Your task to perform on an android device: all mails in gmail Image 0: 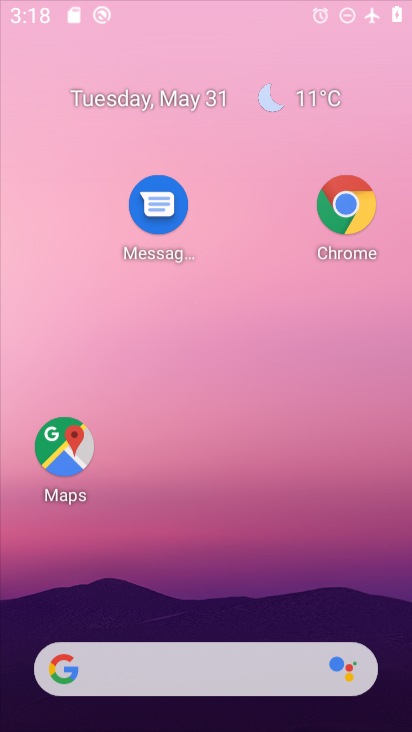
Step 0: click (245, 0)
Your task to perform on an android device: all mails in gmail Image 1: 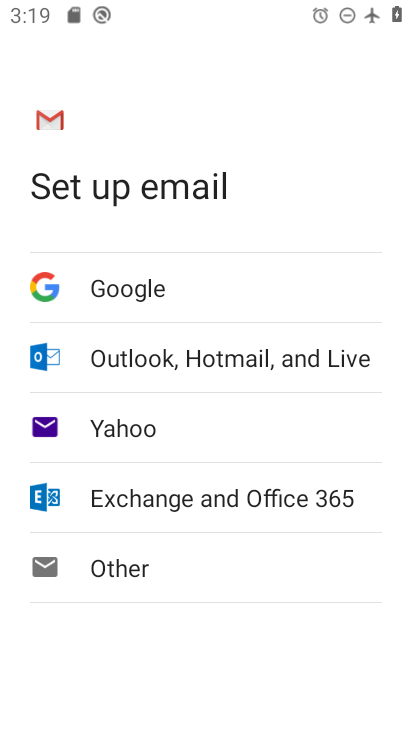
Step 1: drag from (196, 477) to (234, 136)
Your task to perform on an android device: all mails in gmail Image 2: 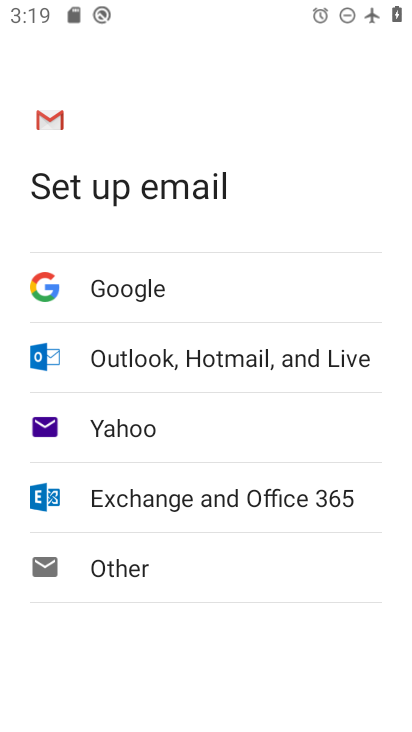
Step 2: drag from (181, 581) to (257, 219)
Your task to perform on an android device: all mails in gmail Image 3: 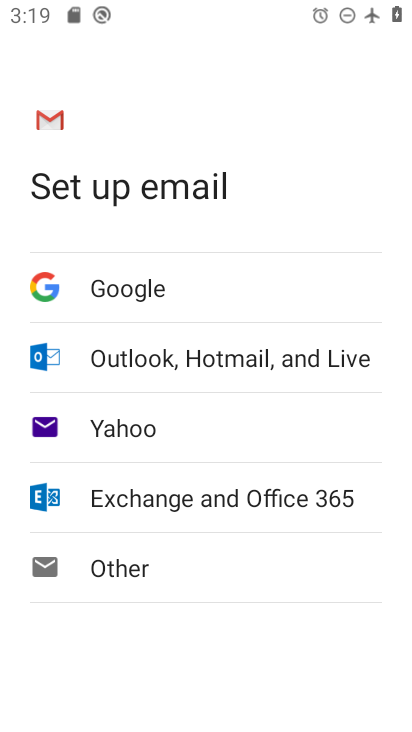
Step 3: press home button
Your task to perform on an android device: all mails in gmail Image 4: 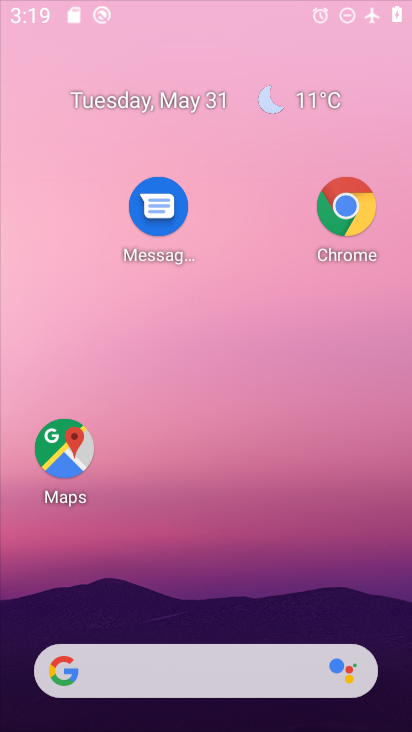
Step 4: drag from (189, 636) to (280, 12)
Your task to perform on an android device: all mails in gmail Image 5: 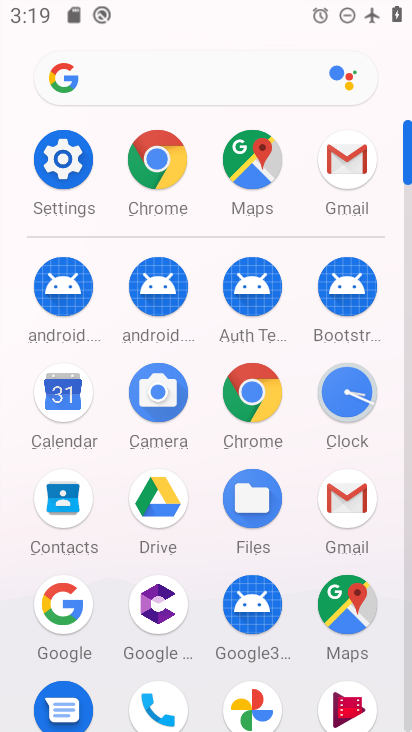
Step 5: click (352, 483)
Your task to perform on an android device: all mails in gmail Image 6: 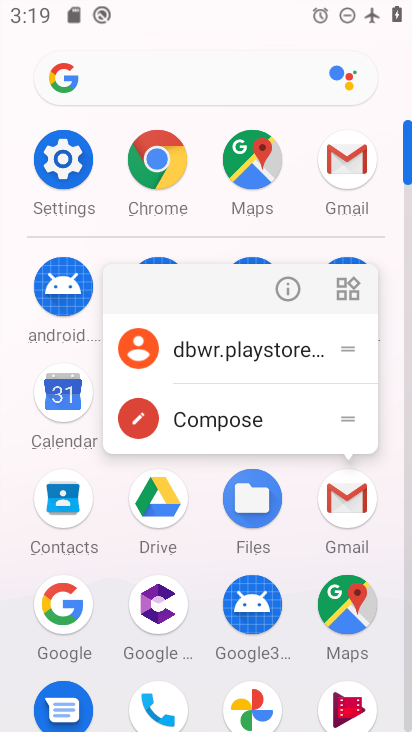
Step 6: click (290, 287)
Your task to perform on an android device: all mails in gmail Image 7: 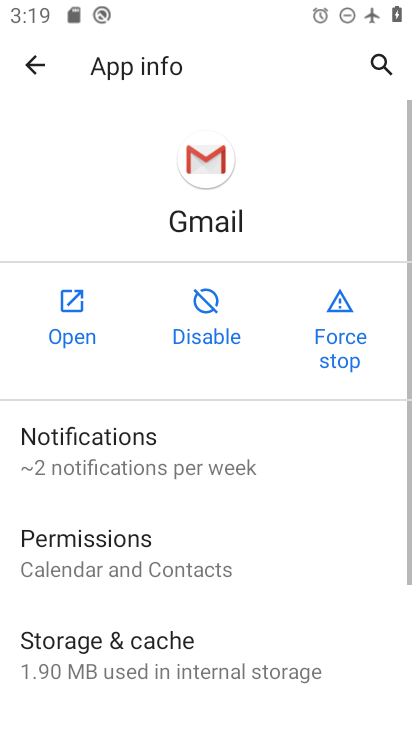
Step 7: click (88, 327)
Your task to perform on an android device: all mails in gmail Image 8: 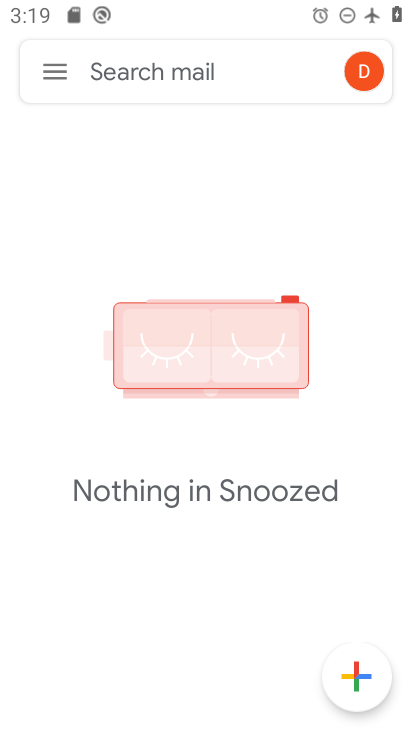
Step 8: click (61, 70)
Your task to perform on an android device: all mails in gmail Image 9: 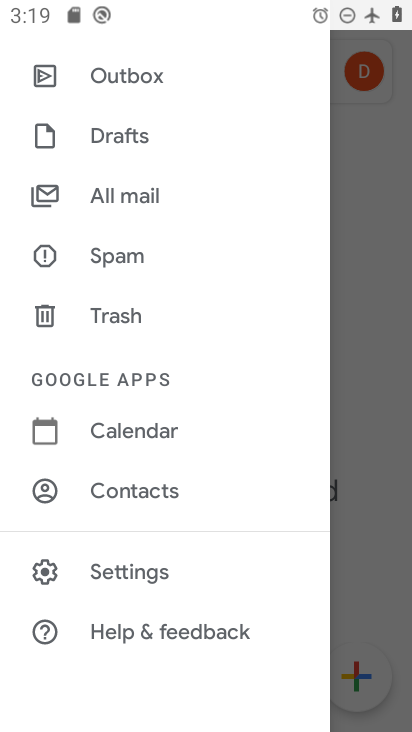
Step 9: click (149, 195)
Your task to perform on an android device: all mails in gmail Image 10: 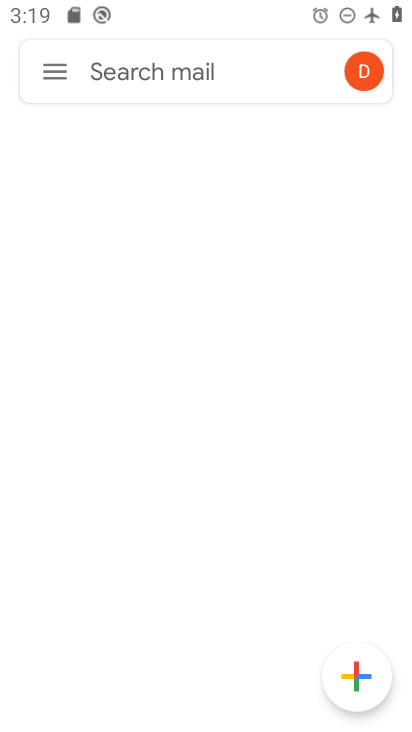
Step 10: task complete